Your task to perform on an android device: change the clock display to digital Image 0: 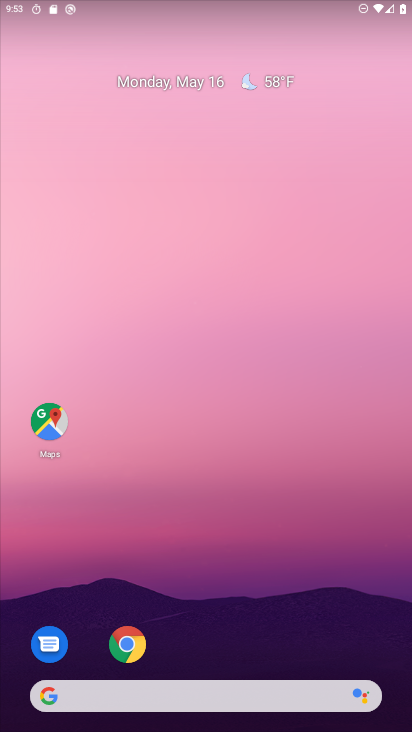
Step 0: drag from (201, 698) to (173, 129)
Your task to perform on an android device: change the clock display to digital Image 1: 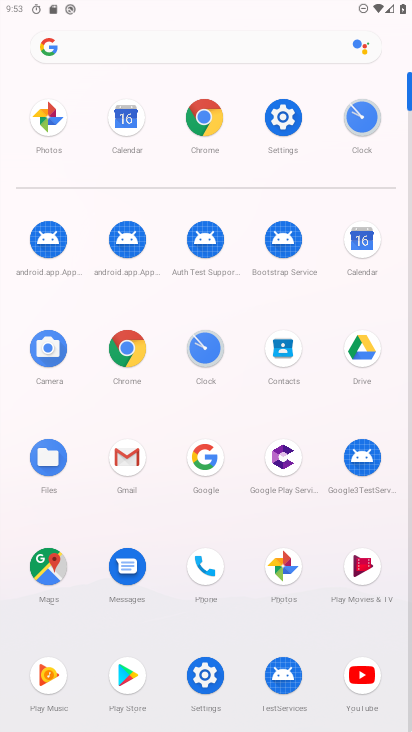
Step 1: click (196, 349)
Your task to perform on an android device: change the clock display to digital Image 2: 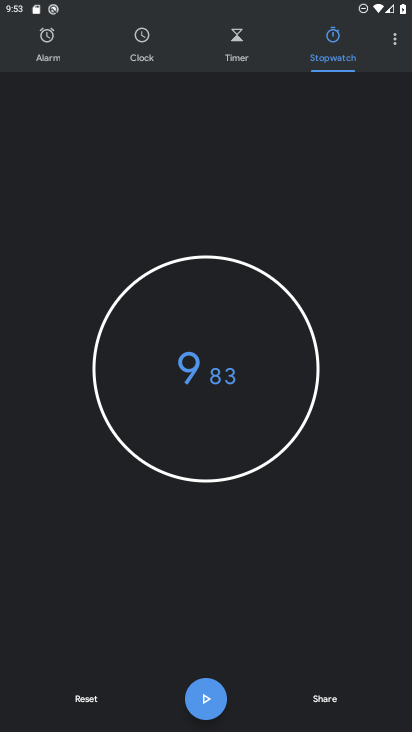
Step 2: click (386, 46)
Your task to perform on an android device: change the clock display to digital Image 3: 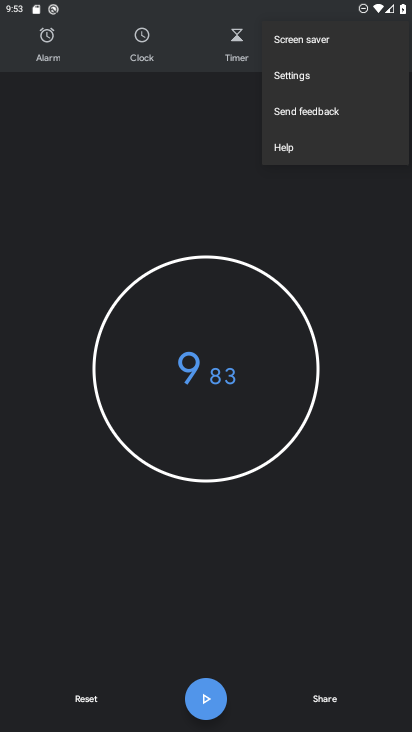
Step 3: click (317, 73)
Your task to perform on an android device: change the clock display to digital Image 4: 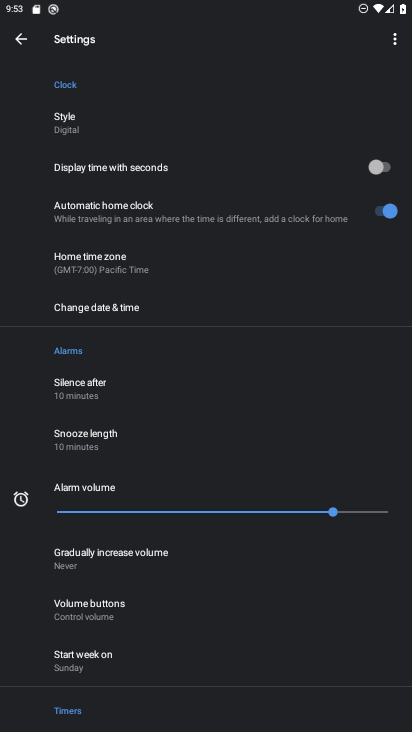
Step 4: click (85, 124)
Your task to perform on an android device: change the clock display to digital Image 5: 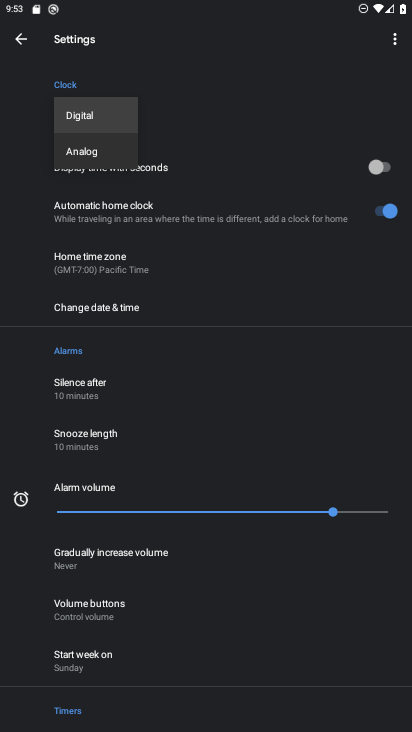
Step 5: click (82, 127)
Your task to perform on an android device: change the clock display to digital Image 6: 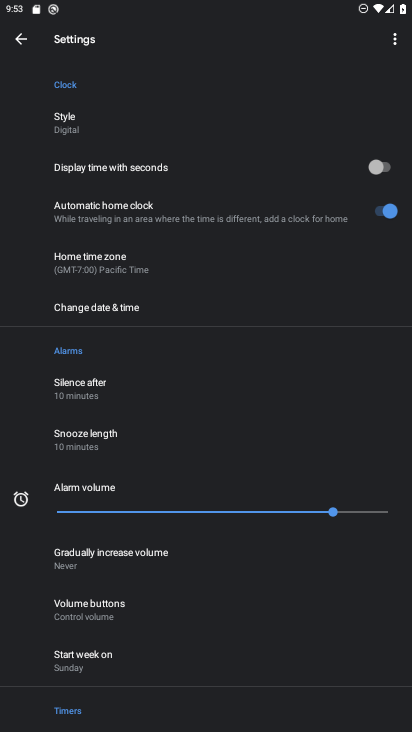
Step 6: task complete